Your task to perform on an android device: Search for logitech g933 on costco.com, select the first entry, and add it to the cart. Image 0: 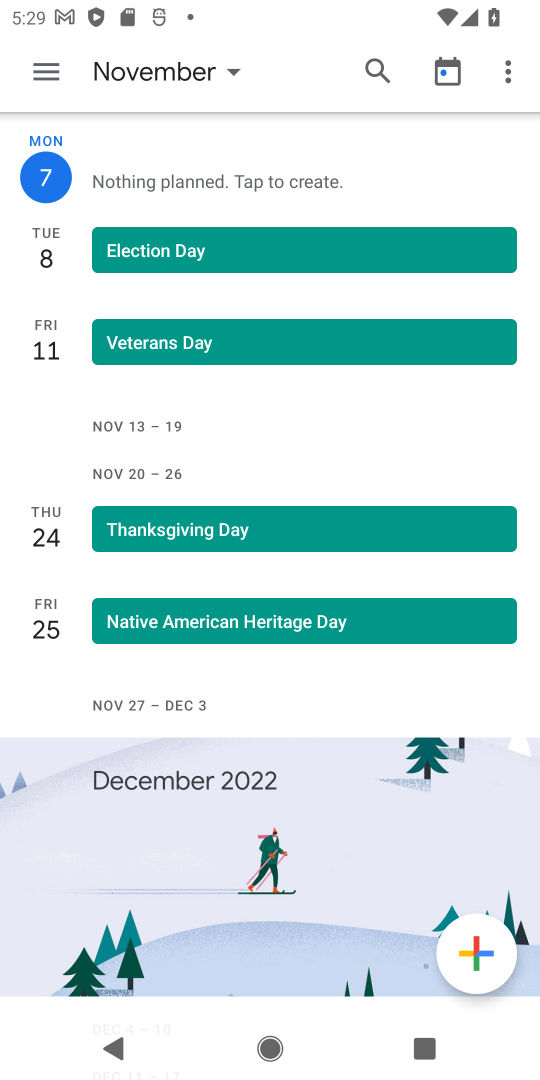
Step 0: press home button
Your task to perform on an android device: Search for logitech g933 on costco.com, select the first entry, and add it to the cart. Image 1: 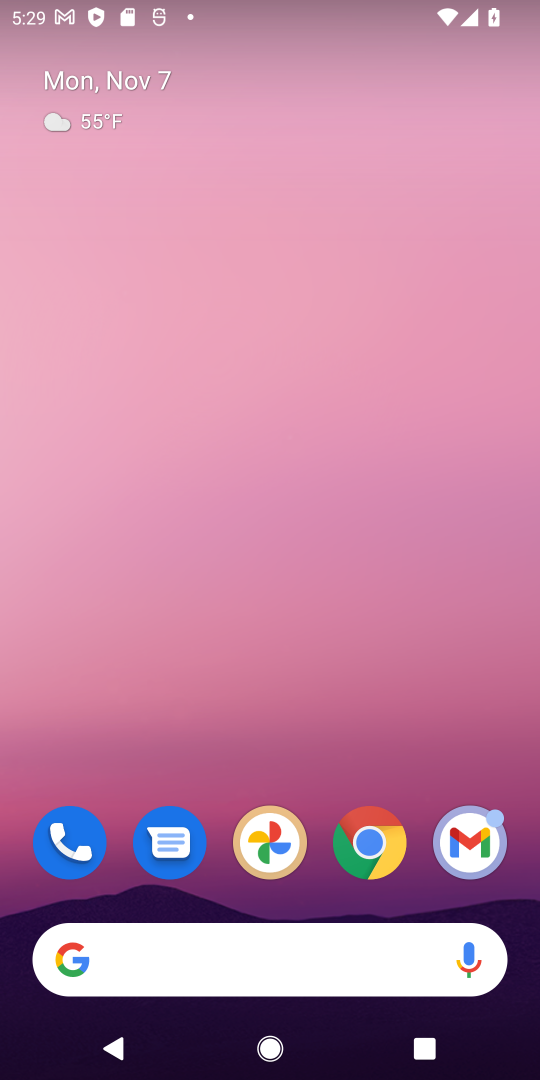
Step 1: click (360, 852)
Your task to perform on an android device: Search for logitech g933 on costco.com, select the first entry, and add it to the cart. Image 2: 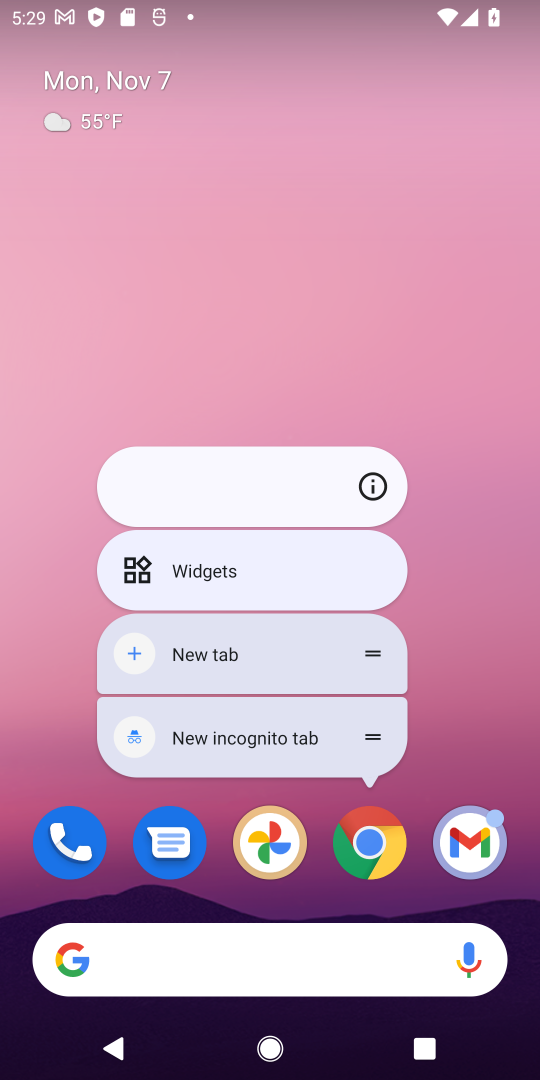
Step 2: click (369, 845)
Your task to perform on an android device: Search for logitech g933 on costco.com, select the first entry, and add it to the cart. Image 3: 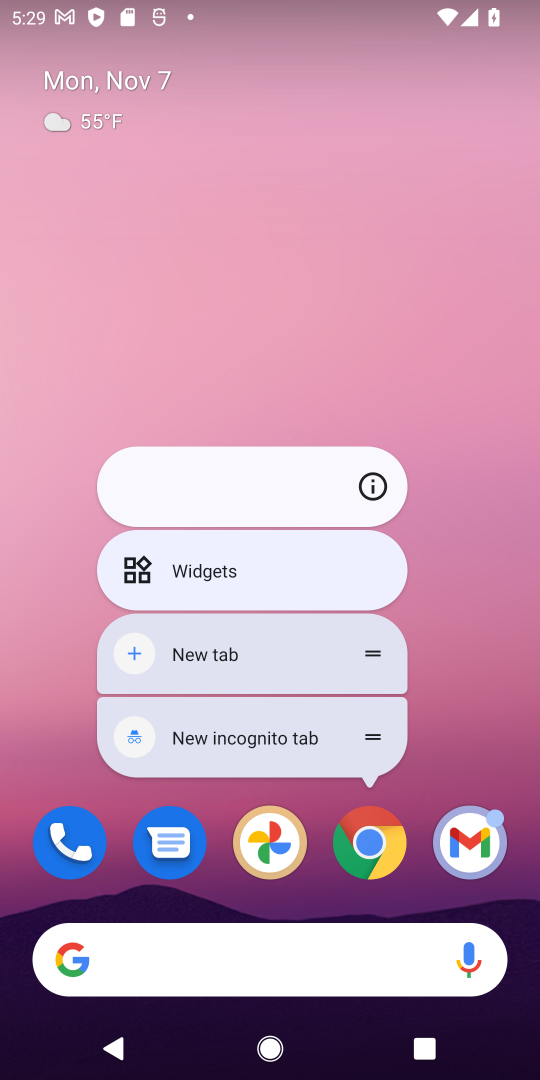
Step 3: click (375, 866)
Your task to perform on an android device: Search for logitech g933 on costco.com, select the first entry, and add it to the cart. Image 4: 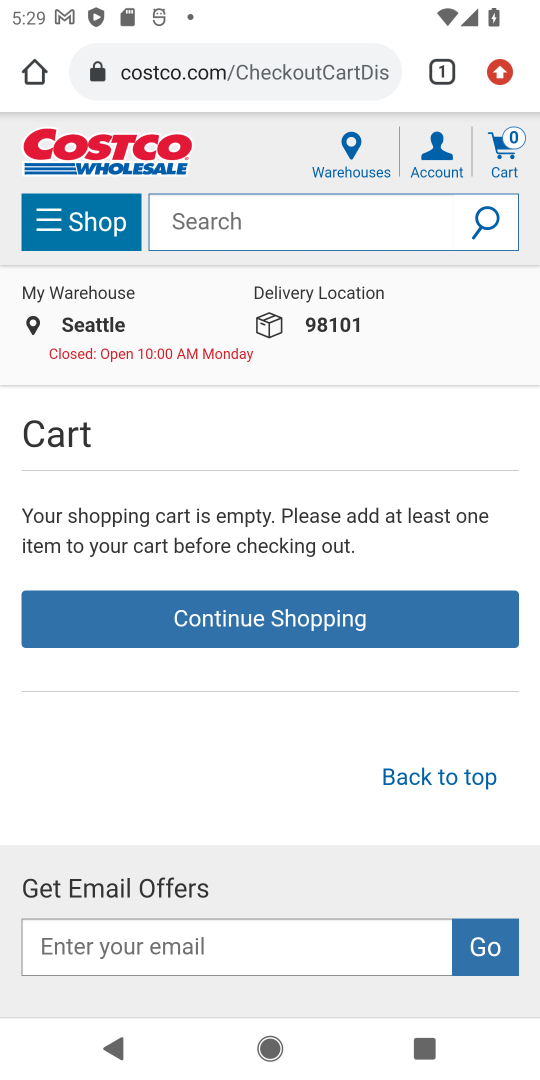
Step 4: click (246, 214)
Your task to perform on an android device: Search for logitech g933 on costco.com, select the first entry, and add it to the cart. Image 5: 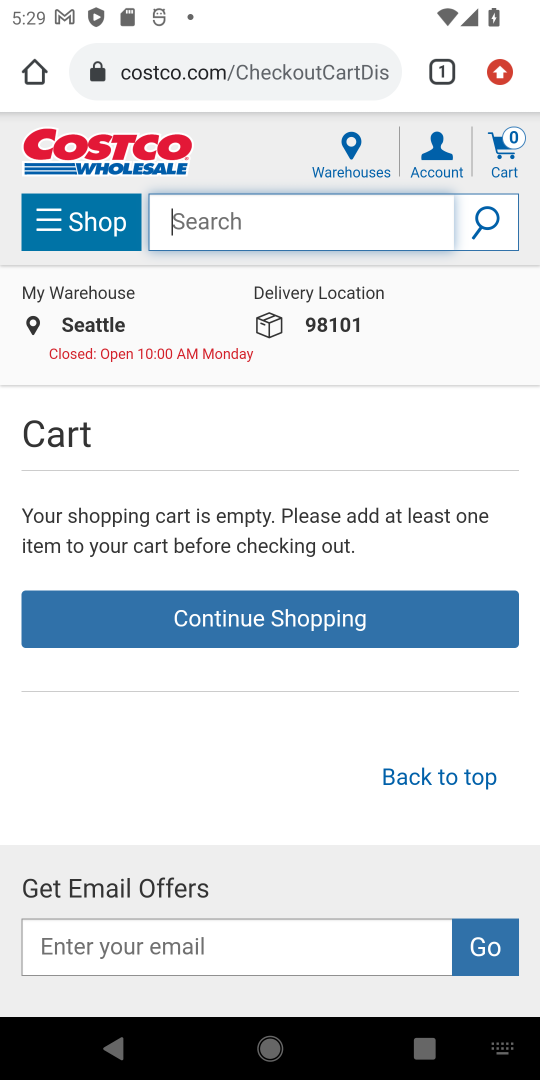
Step 5: click (249, 216)
Your task to perform on an android device: Search for logitech g933 on costco.com, select the first entry, and add it to the cart. Image 6: 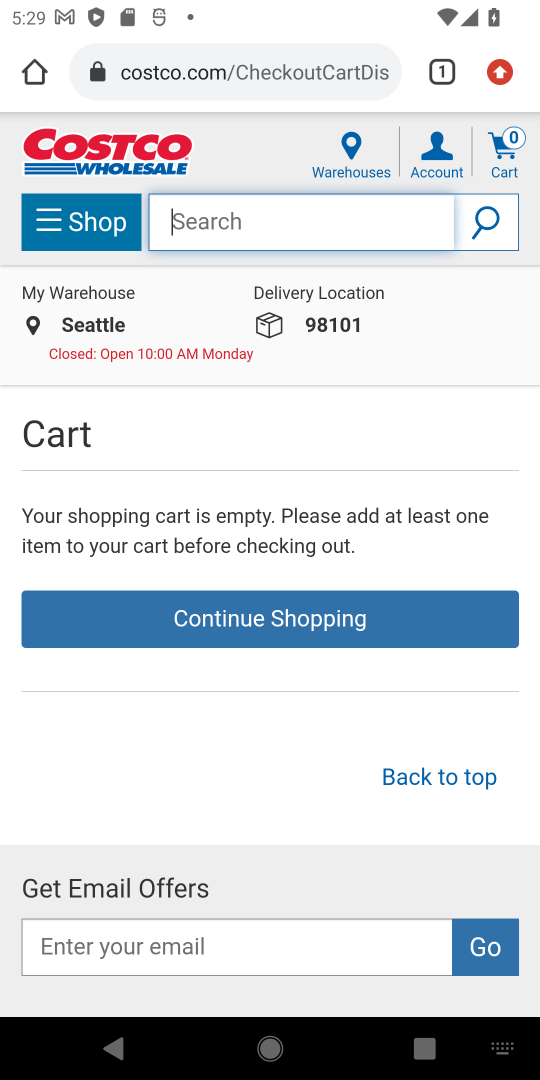
Step 6: type " logitech g933"
Your task to perform on an android device: Search for logitech g933 on costco.com, select the first entry, and add it to the cart. Image 7: 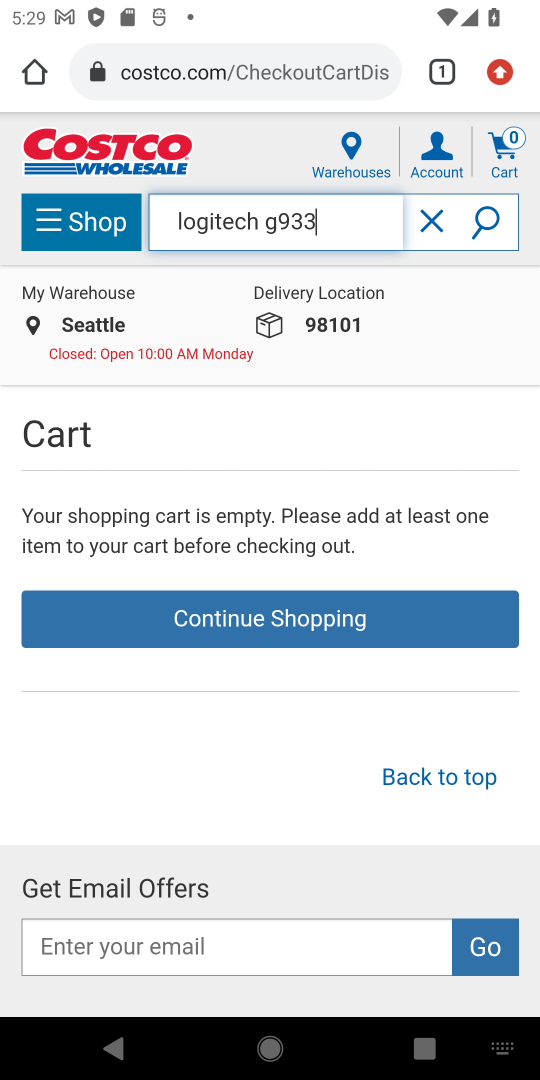
Step 7: press enter
Your task to perform on an android device: Search for logitech g933 on costco.com, select the first entry, and add it to the cart. Image 8: 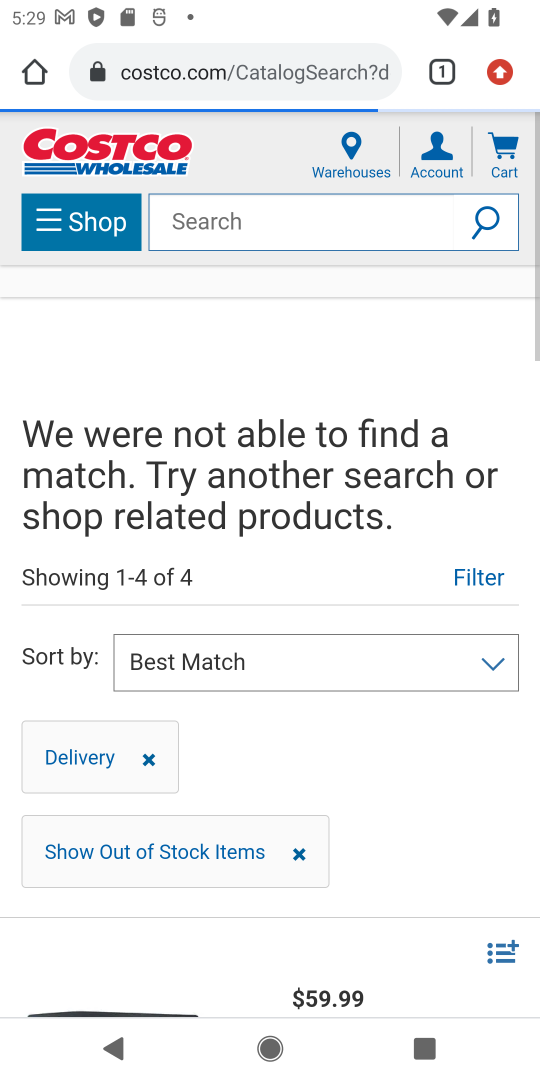
Step 8: press enter
Your task to perform on an android device: Search for logitech g933 on costco.com, select the first entry, and add it to the cart. Image 9: 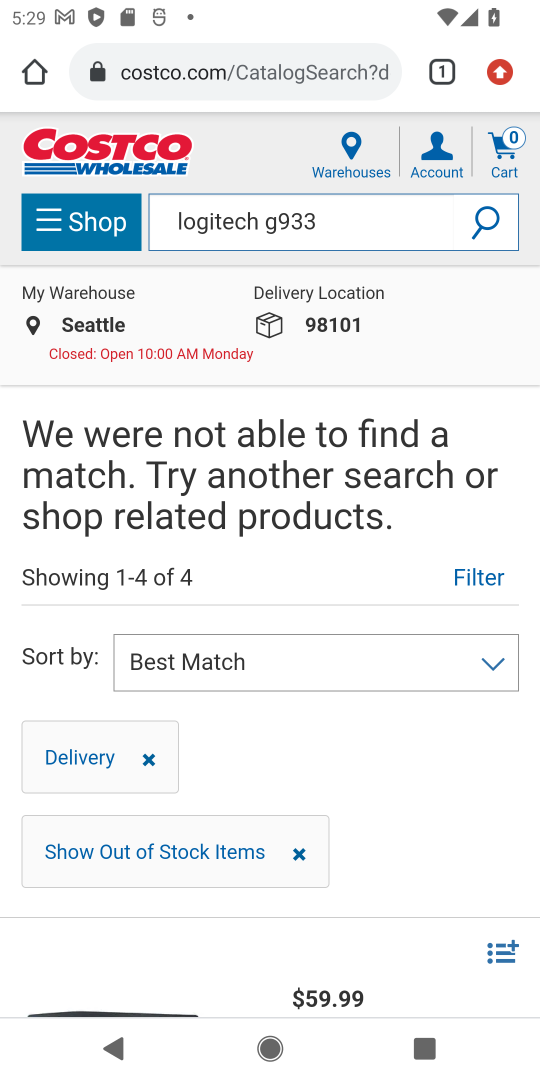
Step 9: task complete